Your task to perform on an android device: Open maps Image 0: 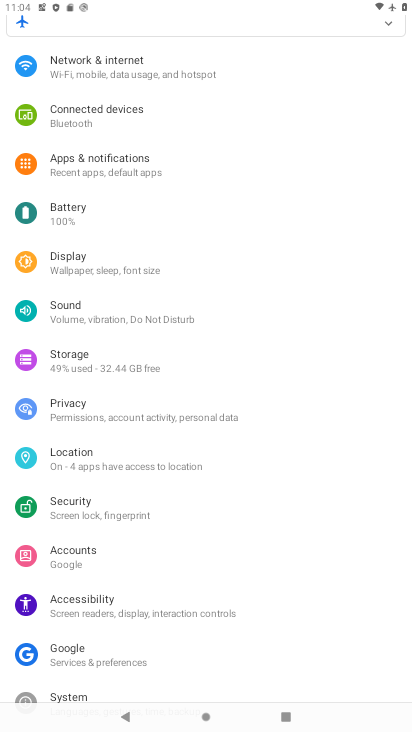
Step 0: press home button
Your task to perform on an android device: Open maps Image 1: 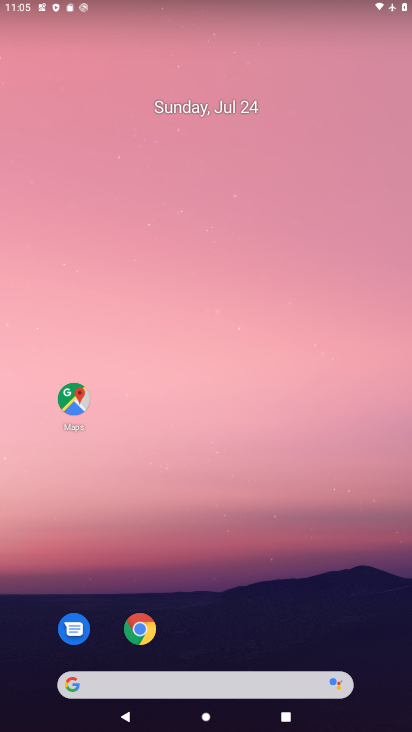
Step 1: click (79, 423)
Your task to perform on an android device: Open maps Image 2: 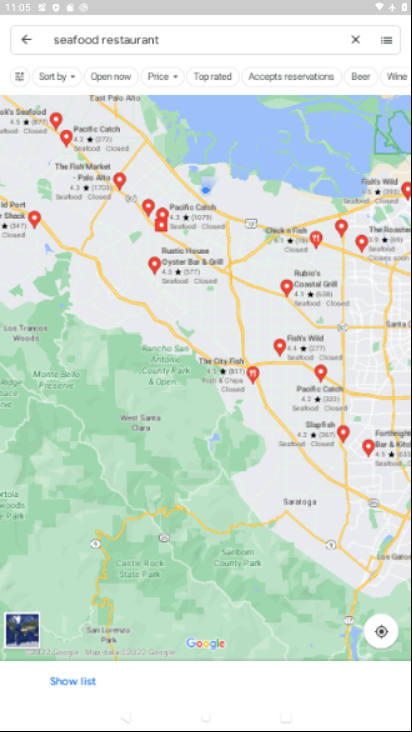
Step 2: task complete